Your task to perform on an android device: What is the recent news? Image 0: 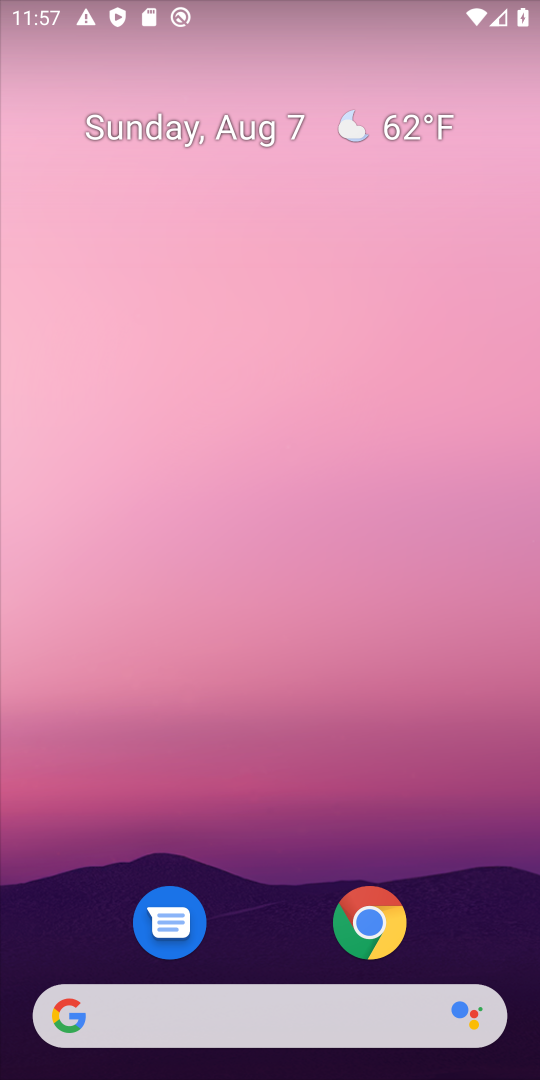
Step 0: drag from (8, 578) to (466, 620)
Your task to perform on an android device: What is the recent news? Image 1: 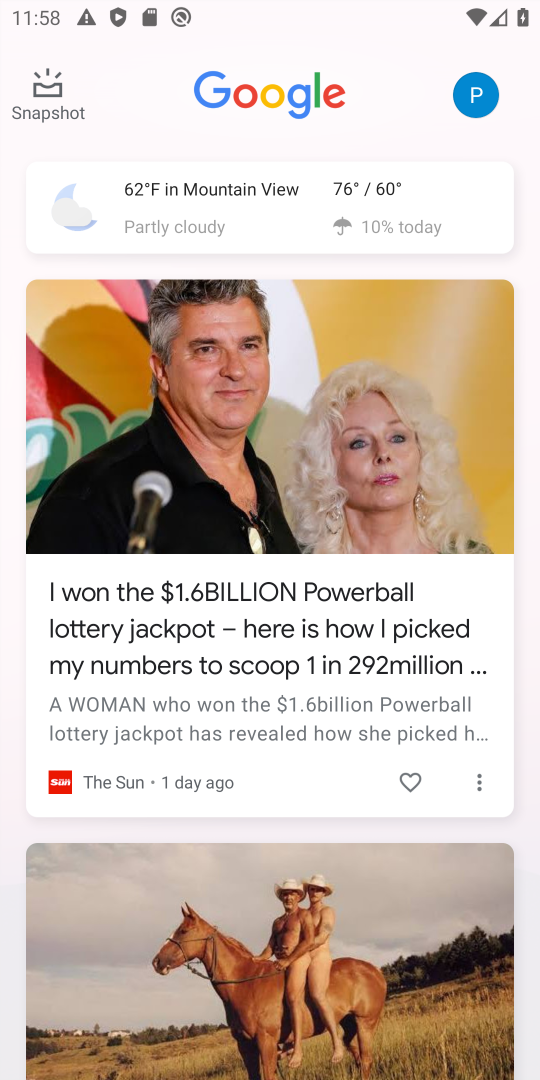
Step 1: task complete